Your task to perform on an android device: open device folders in google photos Image 0: 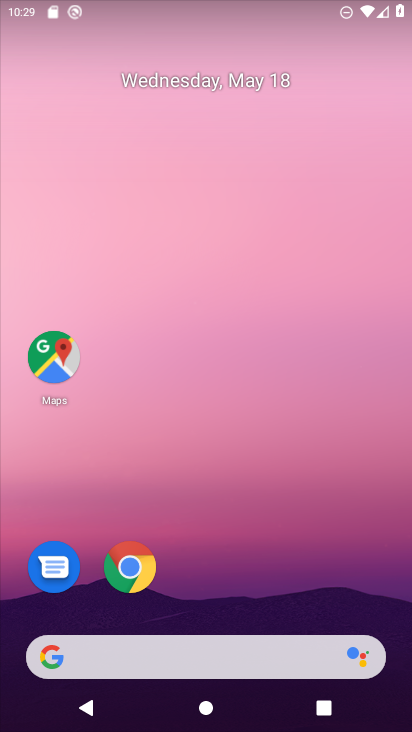
Step 0: drag from (266, 674) to (316, 78)
Your task to perform on an android device: open device folders in google photos Image 1: 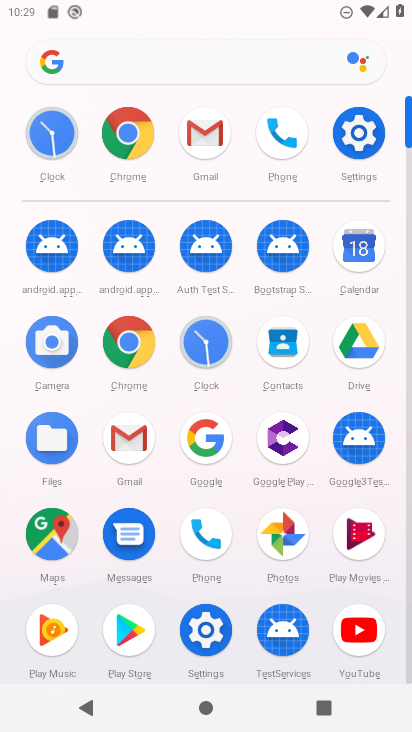
Step 1: click (281, 516)
Your task to perform on an android device: open device folders in google photos Image 2: 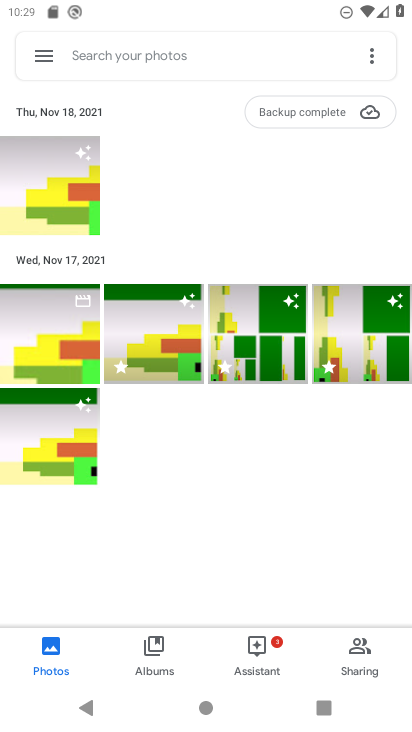
Step 2: click (39, 55)
Your task to perform on an android device: open device folders in google photos Image 3: 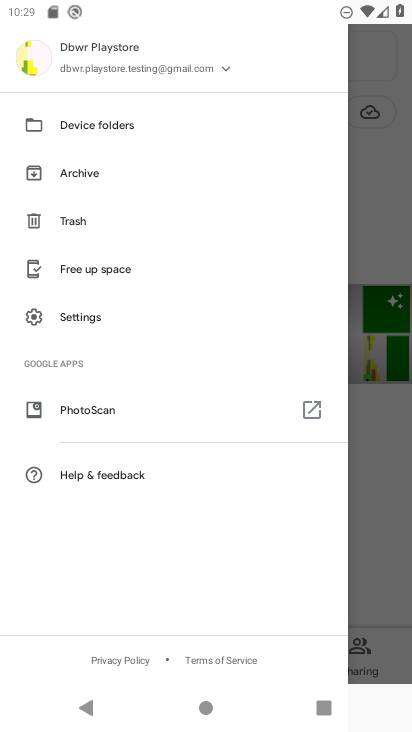
Step 3: click (89, 122)
Your task to perform on an android device: open device folders in google photos Image 4: 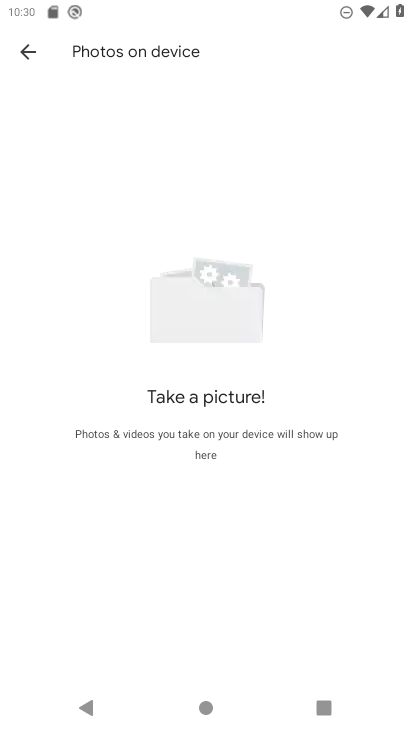
Step 4: task complete